Your task to perform on an android device: delete browsing data in the chrome app Image 0: 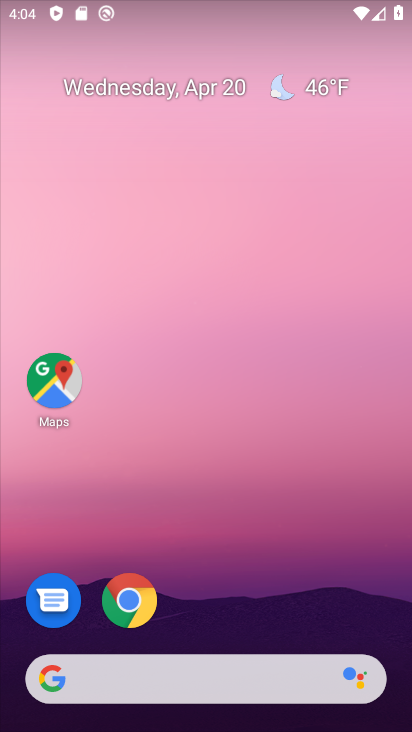
Step 0: click (127, 597)
Your task to perform on an android device: delete browsing data in the chrome app Image 1: 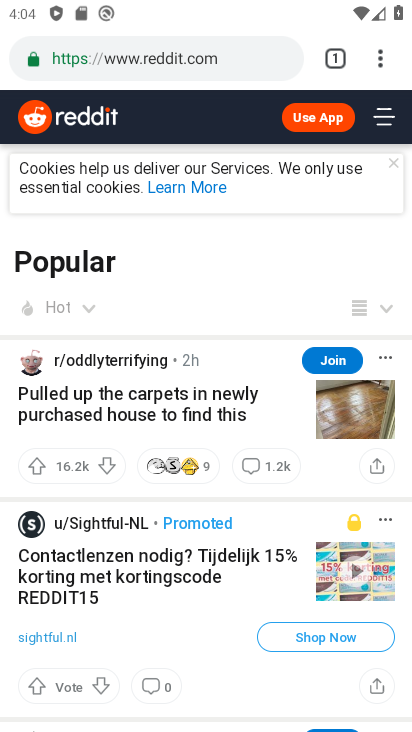
Step 1: task complete